Your task to perform on an android device: Search for seafood restaurants on Google Maps Image 0: 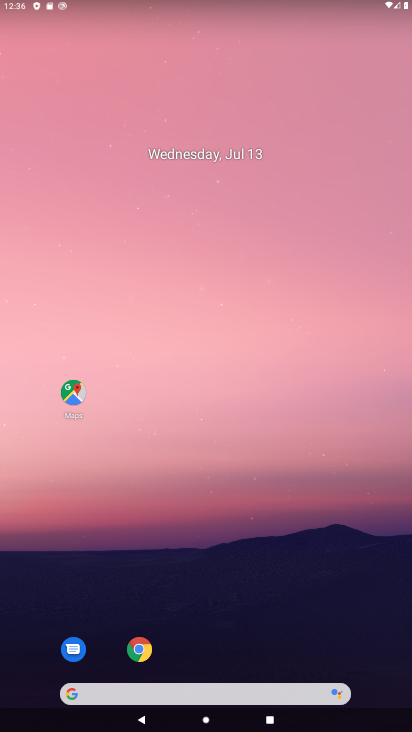
Step 0: drag from (214, 664) to (281, 156)
Your task to perform on an android device: Search for seafood restaurants on Google Maps Image 1: 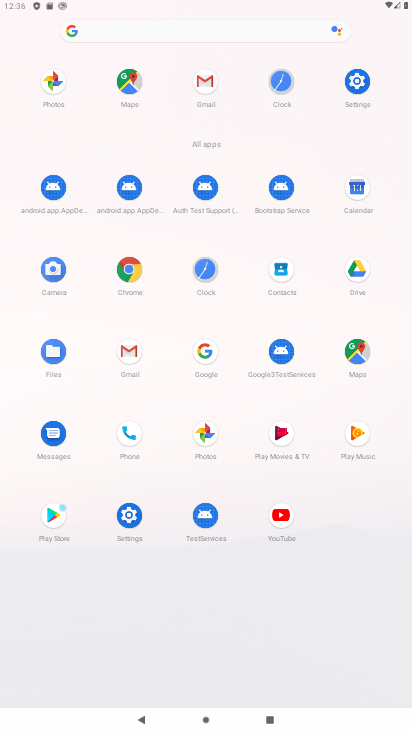
Step 1: click (356, 352)
Your task to perform on an android device: Search for seafood restaurants on Google Maps Image 2: 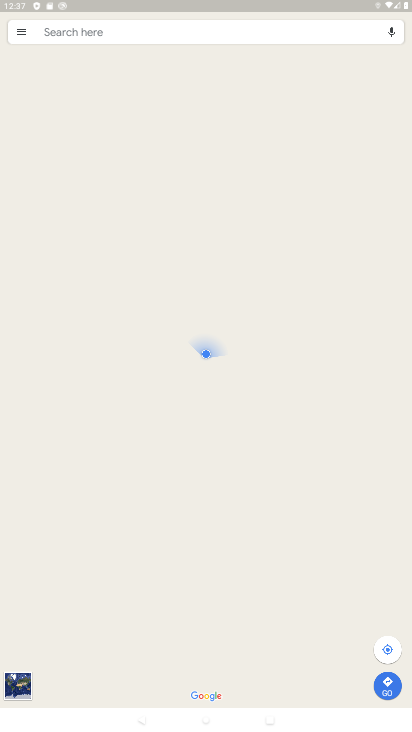
Step 2: click (109, 32)
Your task to perform on an android device: Search for seafood restaurants on Google Maps Image 3: 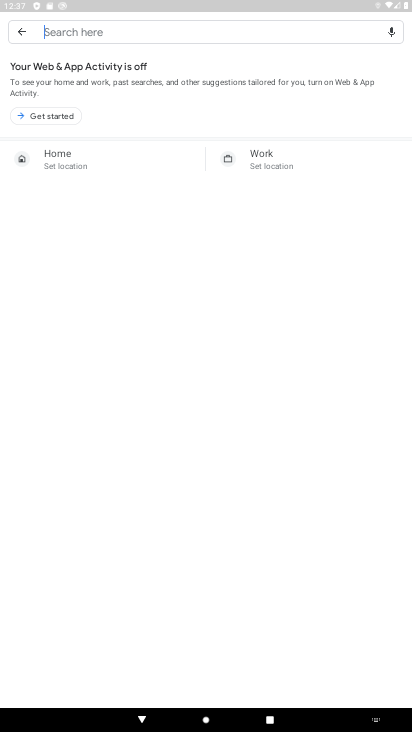
Step 3: type "seafood restaurants"
Your task to perform on an android device: Search for seafood restaurants on Google Maps Image 4: 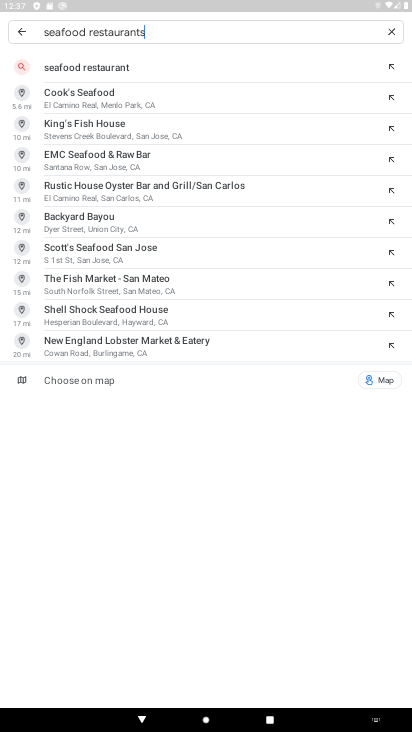
Step 4: click (122, 67)
Your task to perform on an android device: Search for seafood restaurants on Google Maps Image 5: 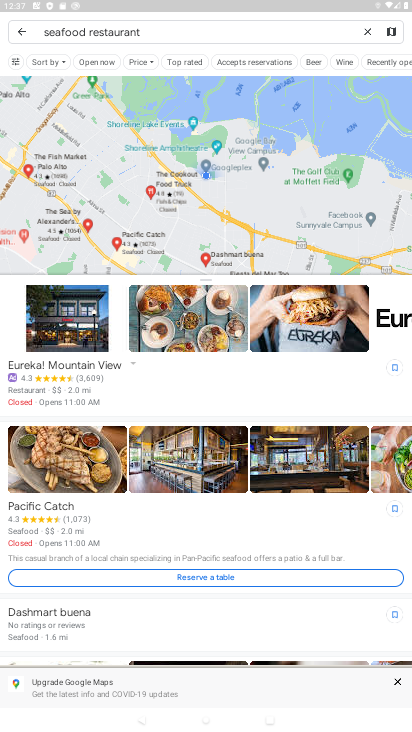
Step 5: task complete